Your task to perform on an android device: uninstall "Google Duo" Image 0: 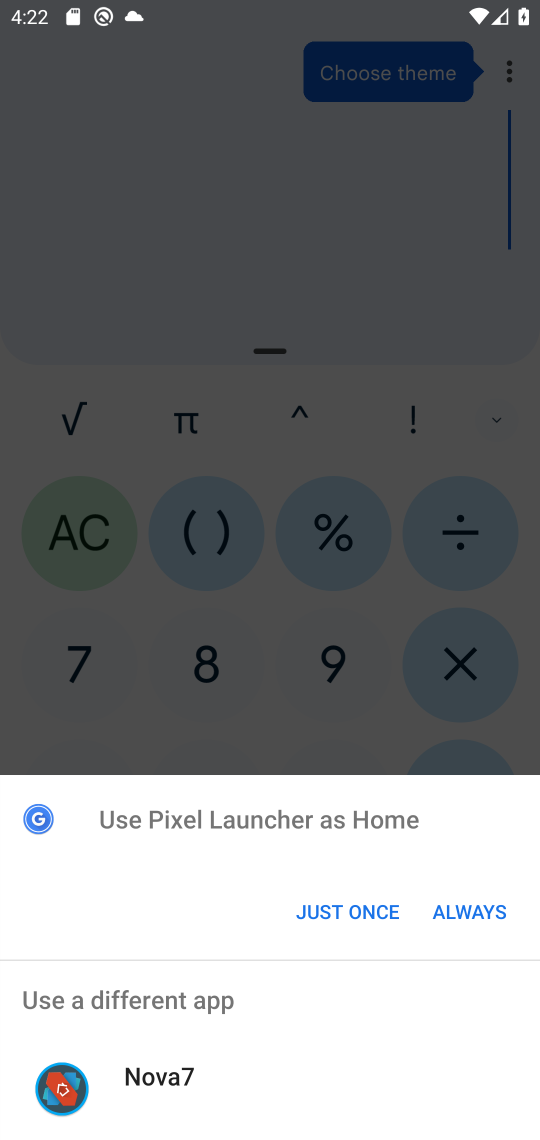
Step 0: press home button
Your task to perform on an android device: uninstall "Google Duo" Image 1: 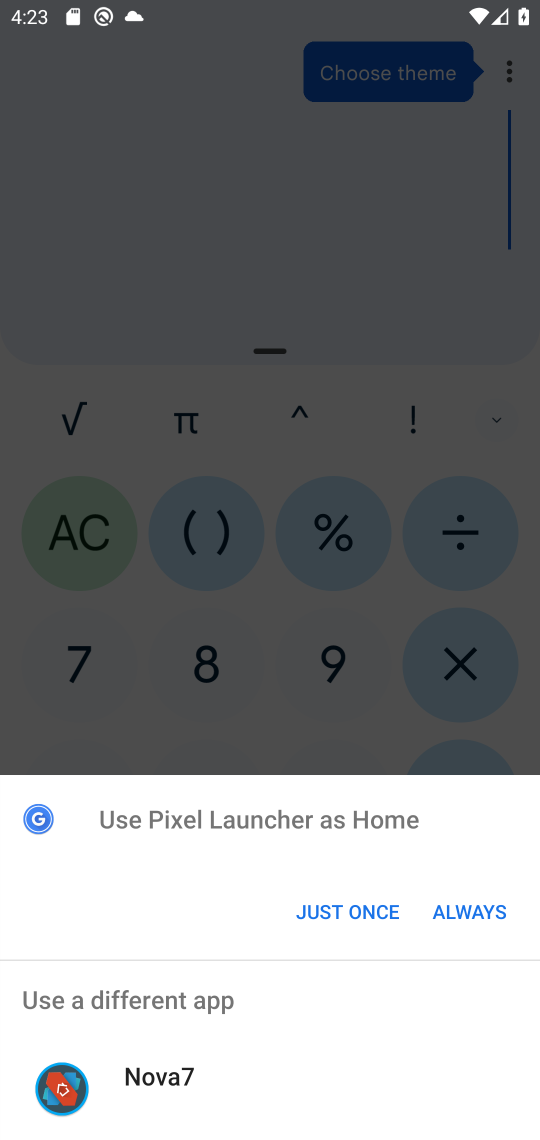
Step 1: click (331, 904)
Your task to perform on an android device: uninstall "Google Duo" Image 2: 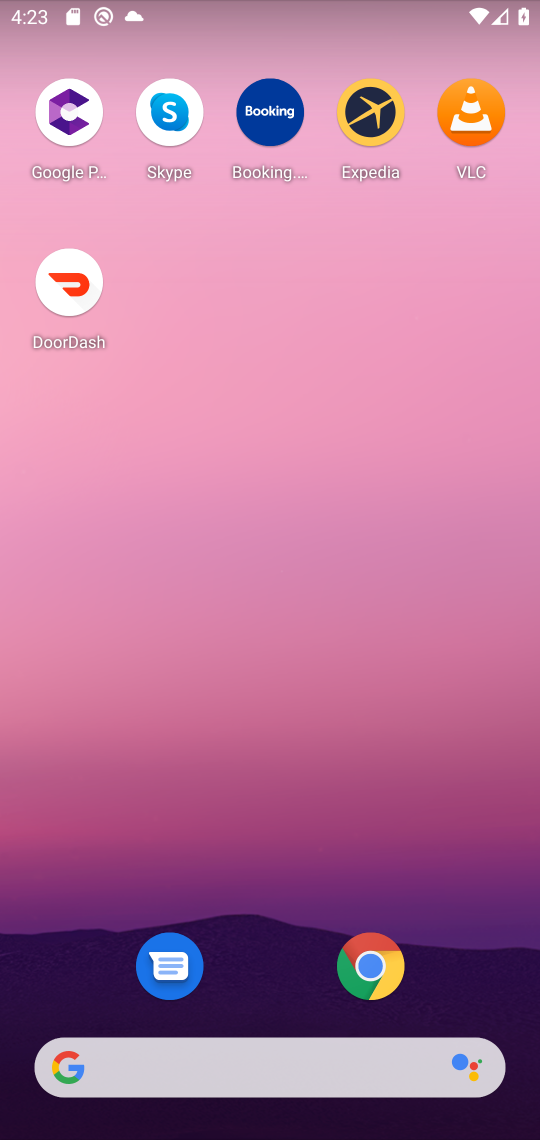
Step 2: drag from (155, 1042) to (180, 212)
Your task to perform on an android device: uninstall "Google Duo" Image 3: 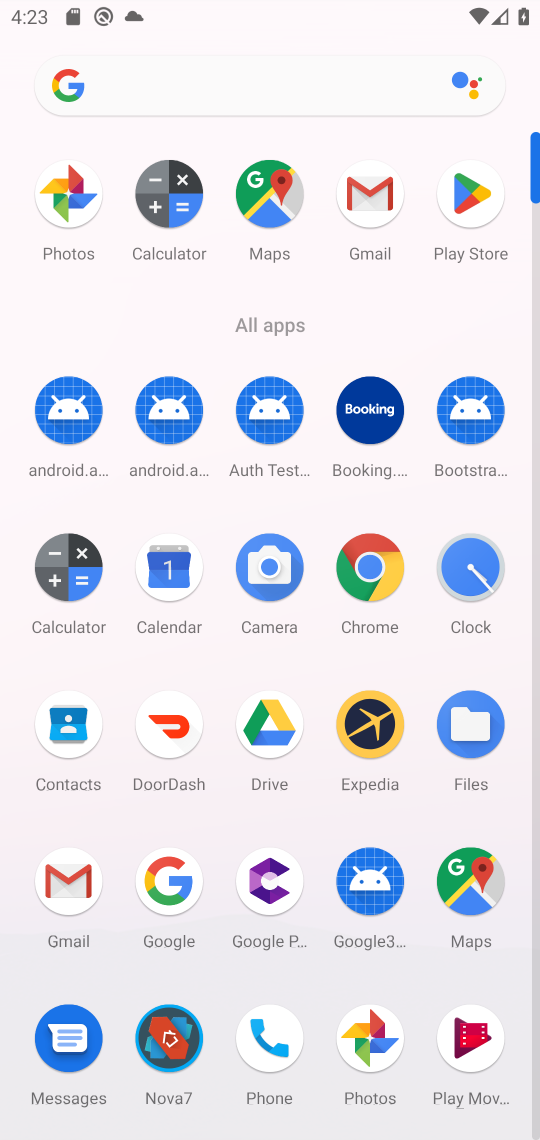
Step 3: click (471, 193)
Your task to perform on an android device: uninstall "Google Duo" Image 4: 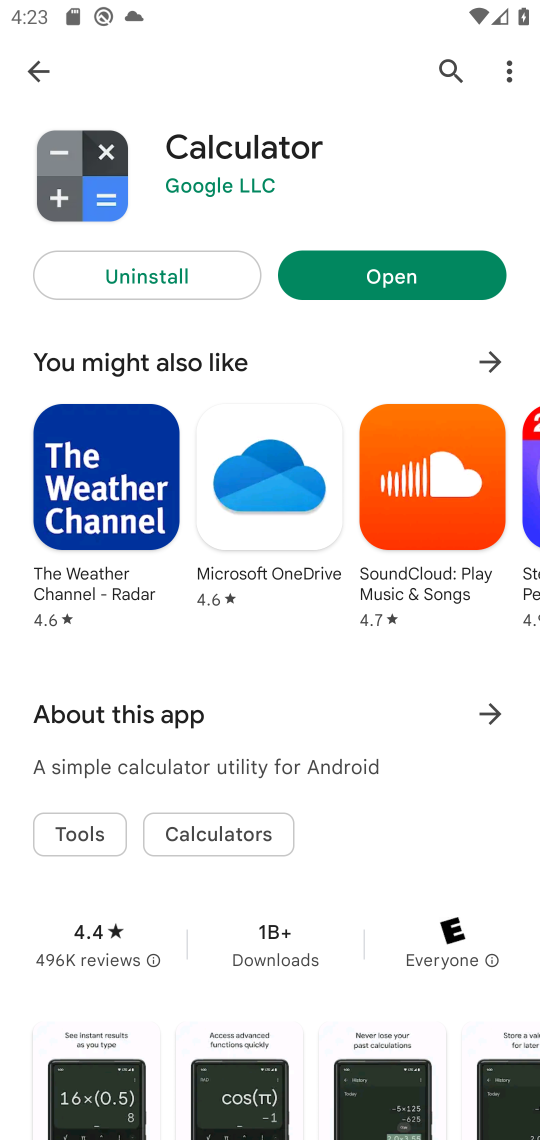
Step 4: click (38, 70)
Your task to perform on an android device: uninstall "Google Duo" Image 5: 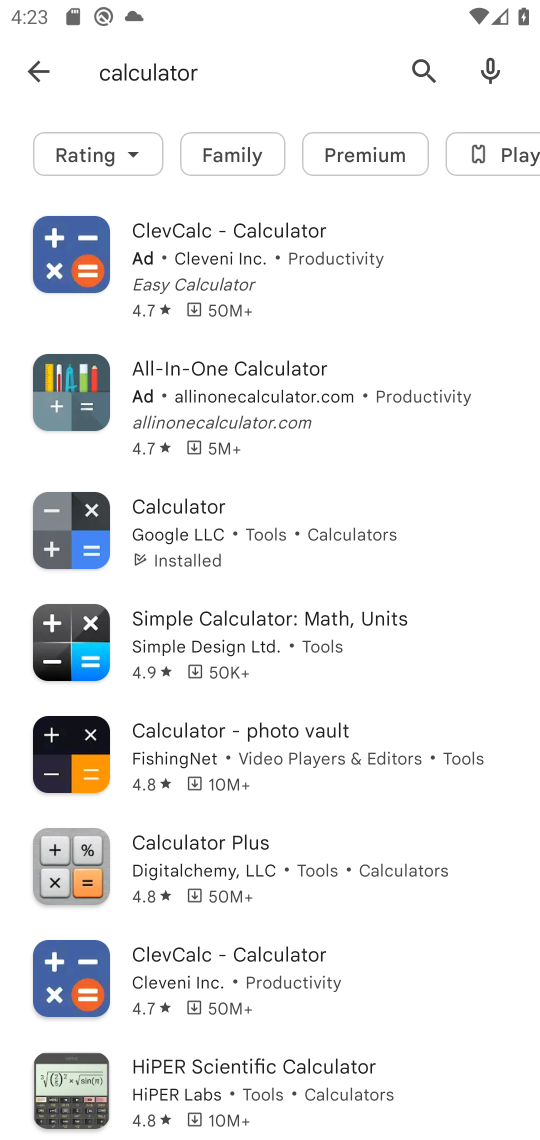
Step 5: click (425, 64)
Your task to perform on an android device: uninstall "Google Duo" Image 6: 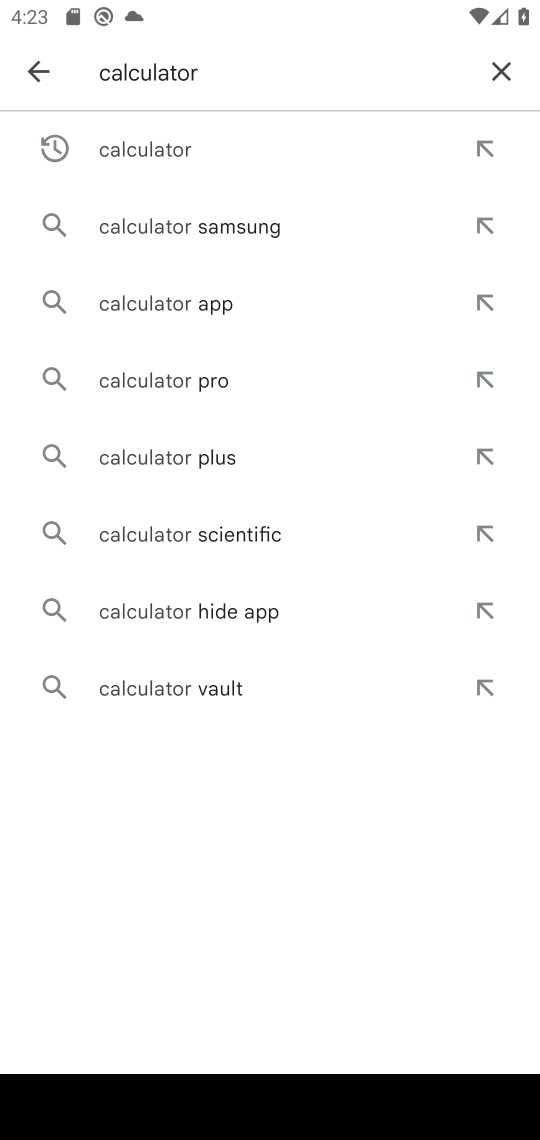
Step 6: click (491, 69)
Your task to perform on an android device: uninstall "Google Duo" Image 7: 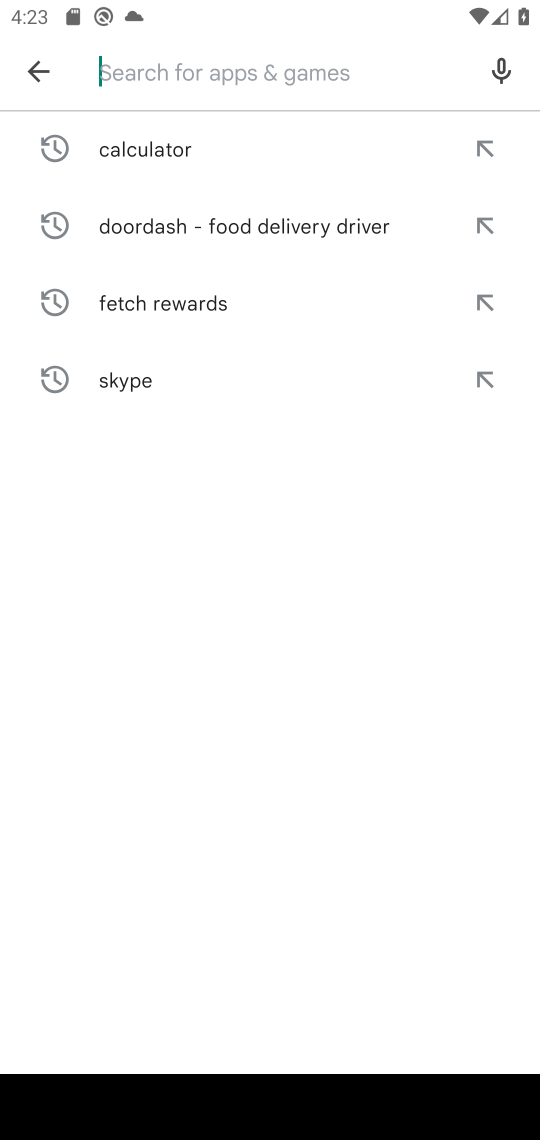
Step 7: type "Google Duo"
Your task to perform on an android device: uninstall "Google Duo" Image 8: 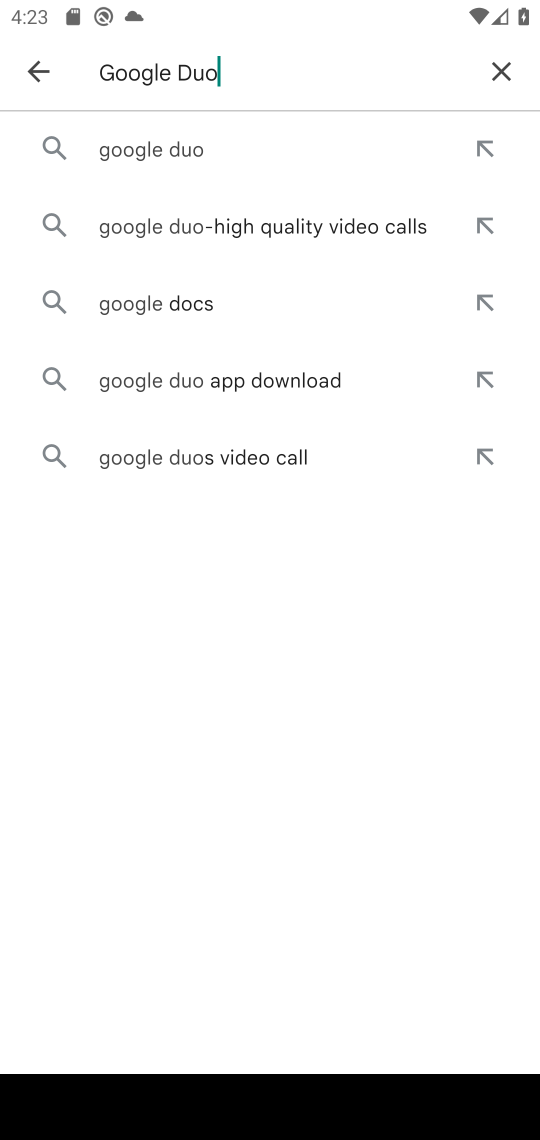
Step 8: click (171, 146)
Your task to perform on an android device: uninstall "Google Duo" Image 9: 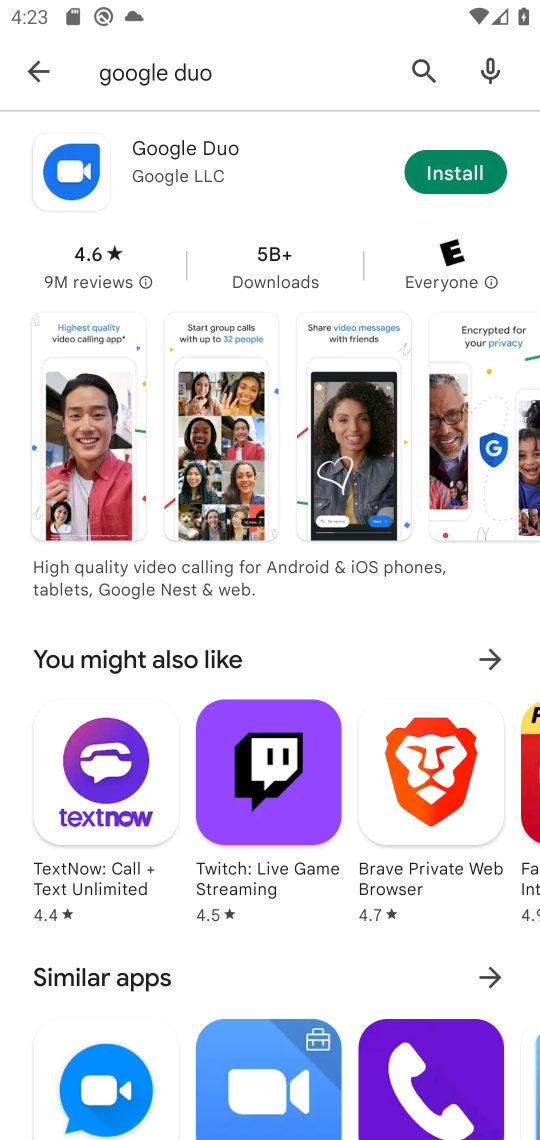
Step 9: click (428, 172)
Your task to perform on an android device: uninstall "Google Duo" Image 10: 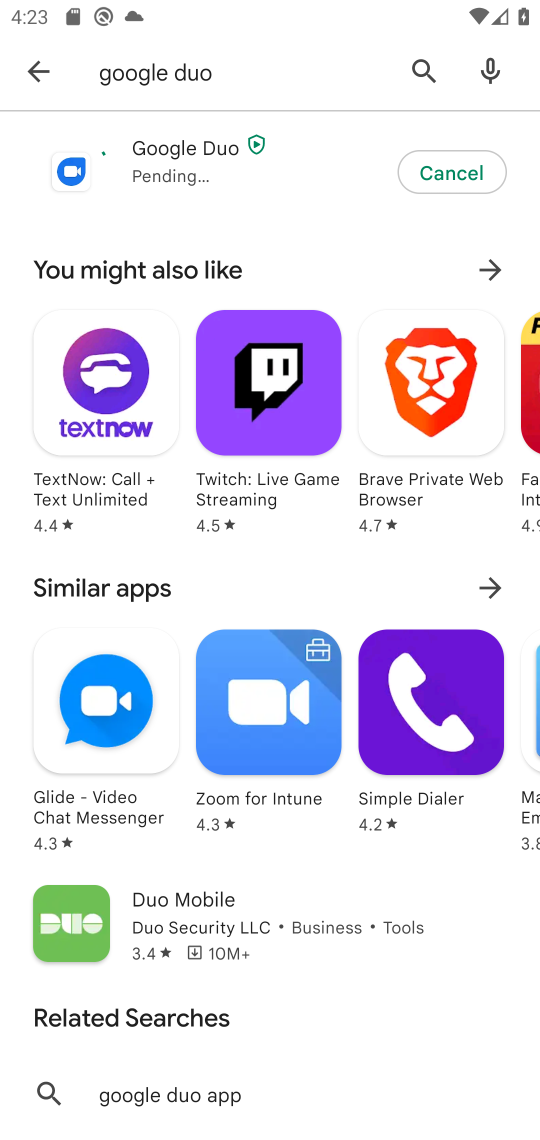
Step 10: click (427, 165)
Your task to perform on an android device: uninstall "Google Duo" Image 11: 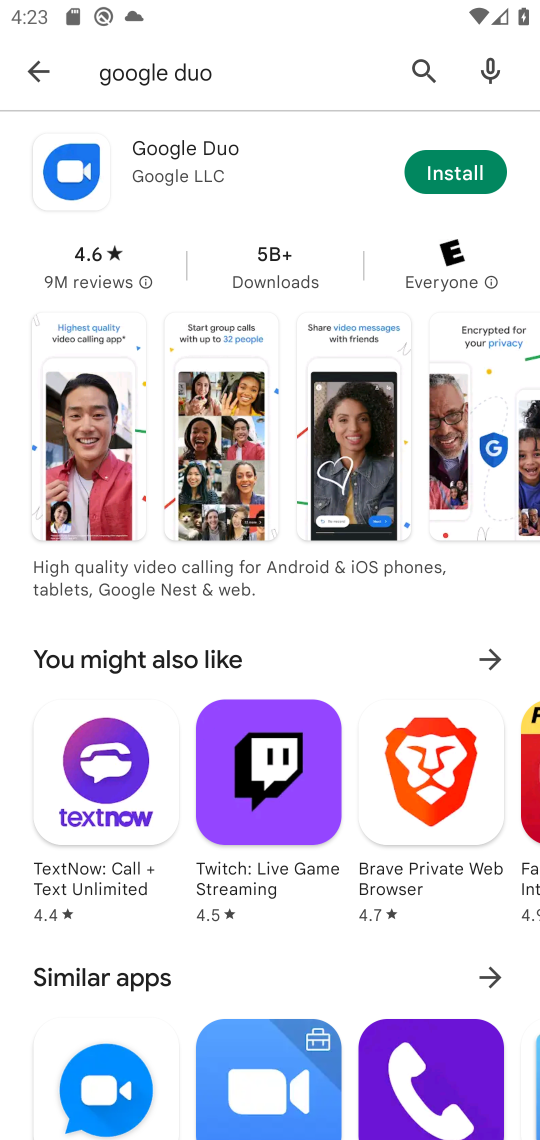
Step 11: task complete